Your task to perform on an android device: What's on my calendar tomorrow? Image 0: 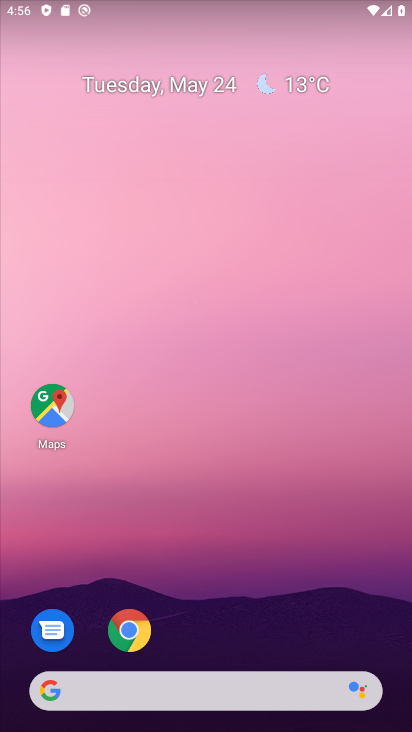
Step 0: drag from (212, 641) to (238, 56)
Your task to perform on an android device: What's on my calendar tomorrow? Image 1: 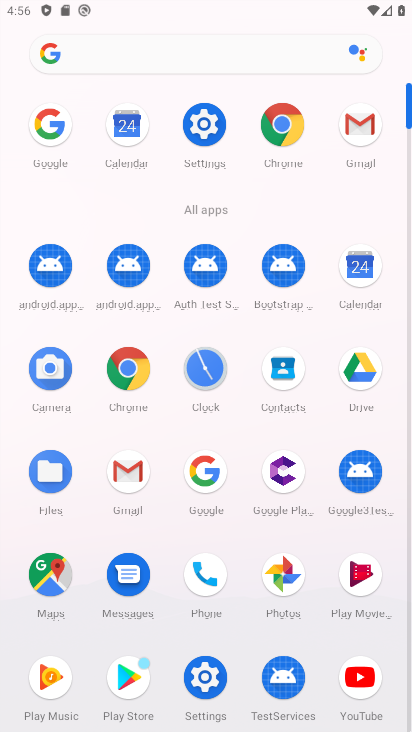
Step 1: click (365, 291)
Your task to perform on an android device: What's on my calendar tomorrow? Image 2: 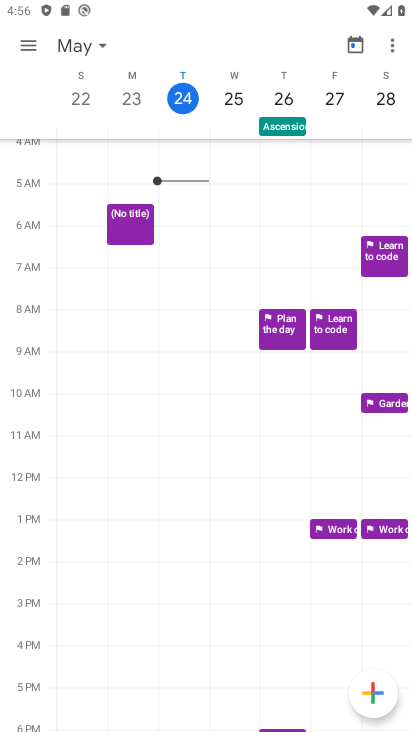
Step 2: click (40, 48)
Your task to perform on an android device: What's on my calendar tomorrow? Image 3: 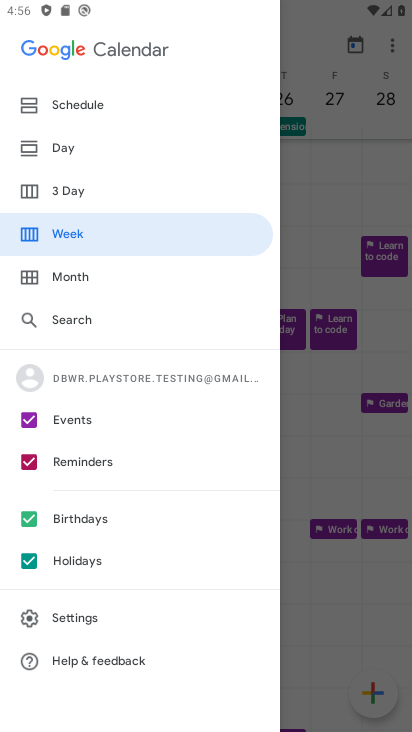
Step 3: click (85, 113)
Your task to perform on an android device: What's on my calendar tomorrow? Image 4: 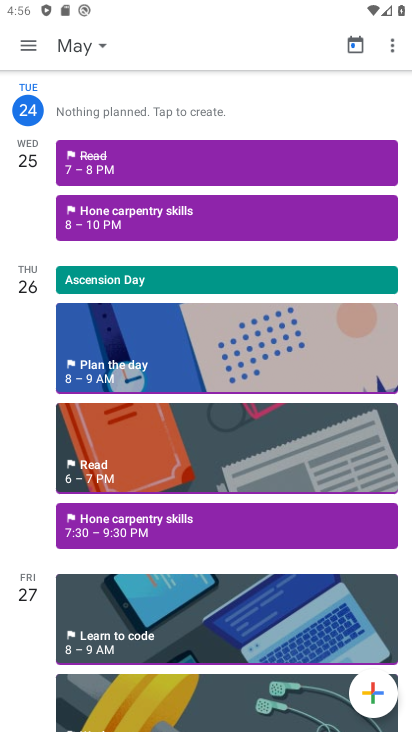
Step 4: task complete